Your task to perform on an android device: See recent photos Image 0: 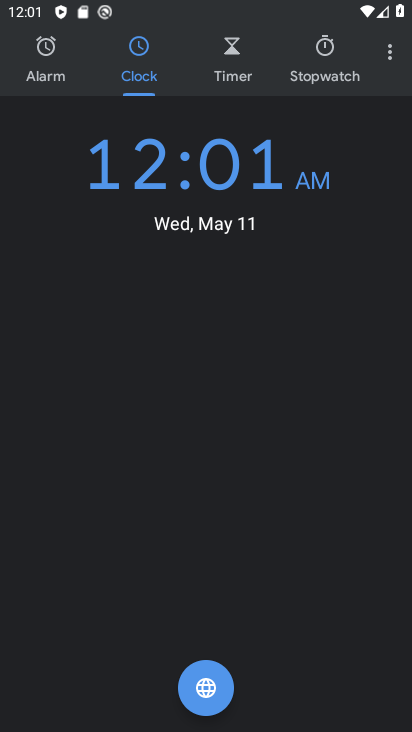
Step 0: press home button
Your task to perform on an android device: See recent photos Image 1: 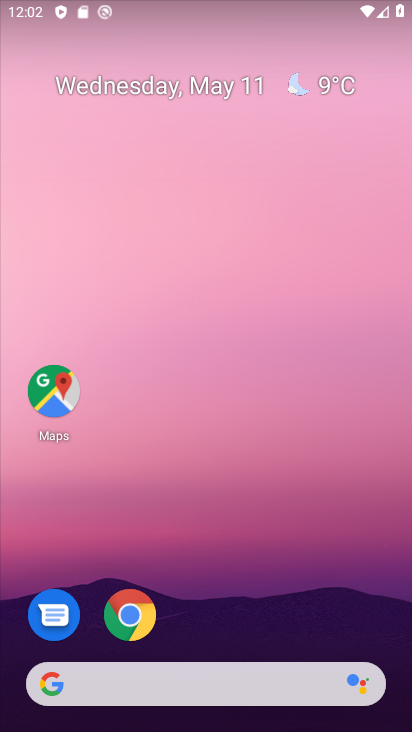
Step 1: drag from (315, 612) to (296, 425)
Your task to perform on an android device: See recent photos Image 2: 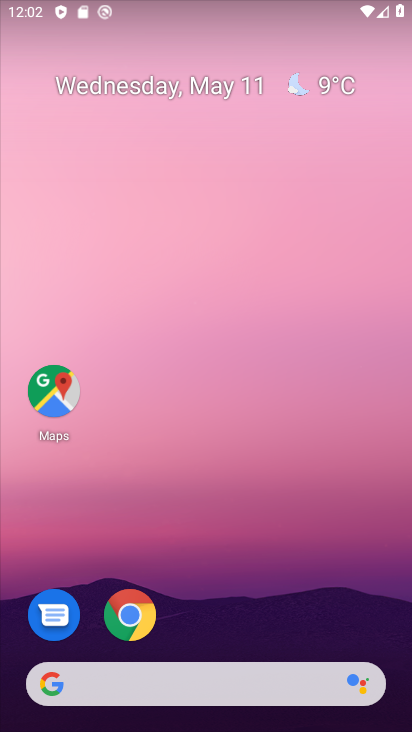
Step 2: drag from (278, 553) to (321, 108)
Your task to perform on an android device: See recent photos Image 3: 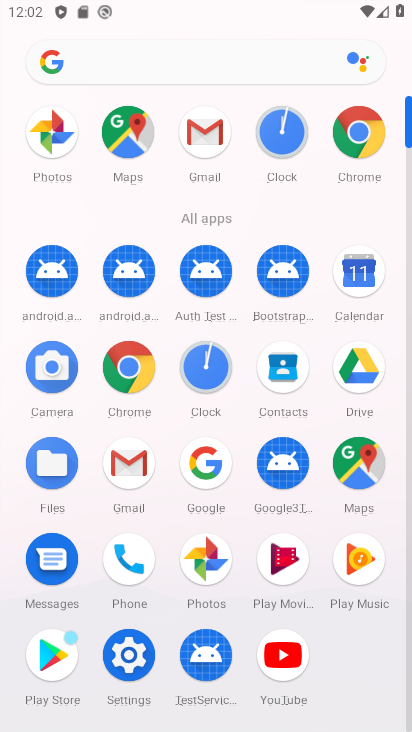
Step 3: click (195, 562)
Your task to perform on an android device: See recent photos Image 4: 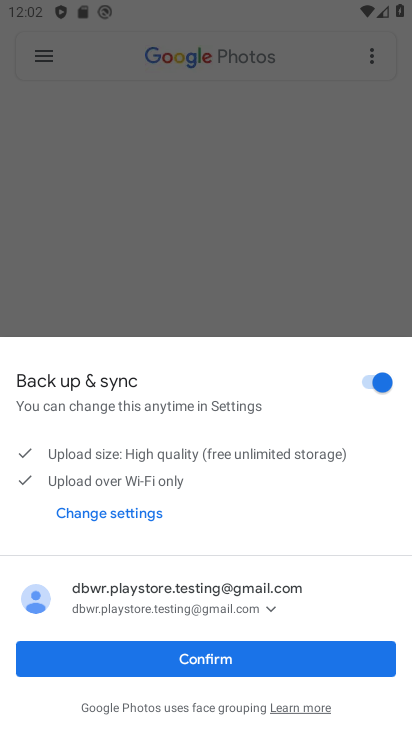
Step 4: click (178, 673)
Your task to perform on an android device: See recent photos Image 5: 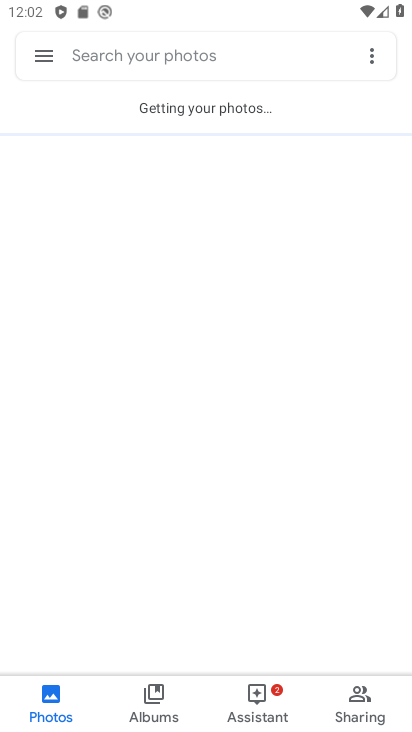
Step 5: task complete